Your task to perform on an android device: open app "Duolingo: language lessons" (install if not already installed), go to login, and select forgot password Image 0: 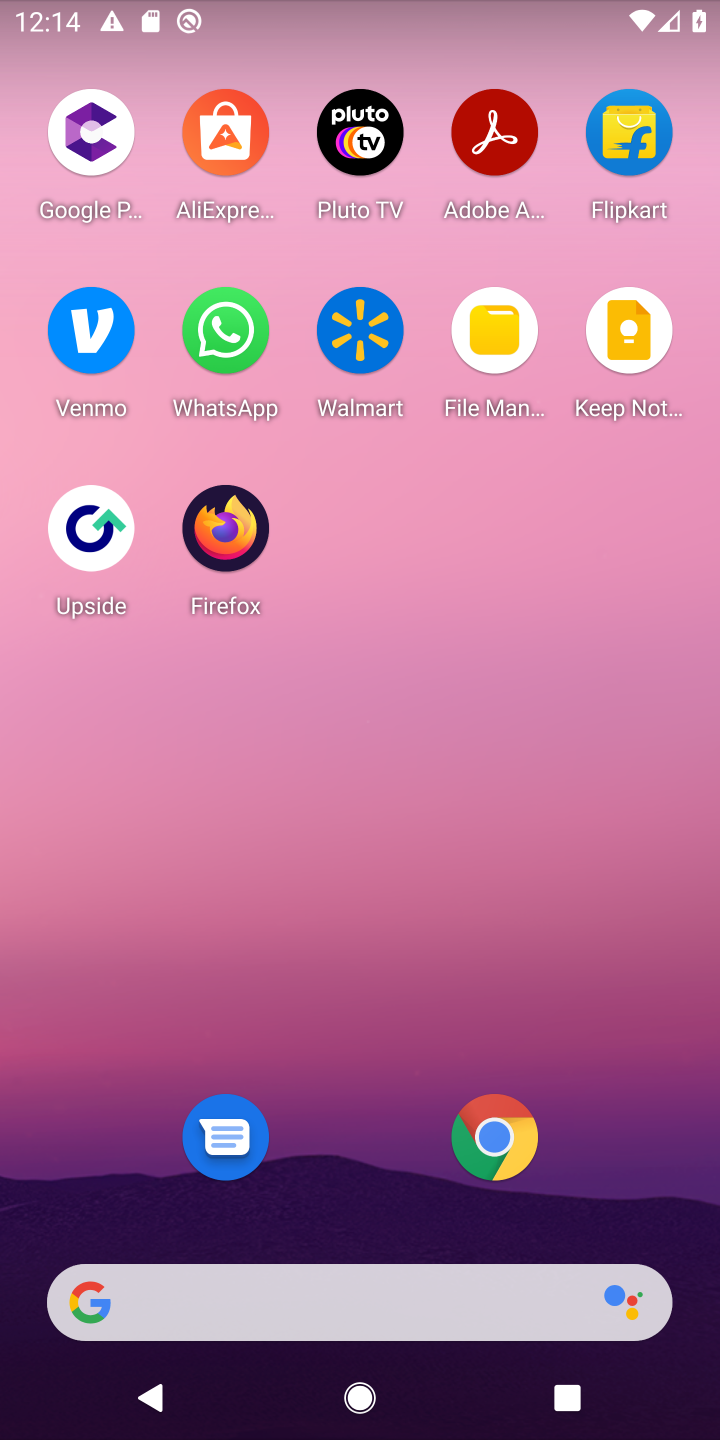
Step 0: click (333, 107)
Your task to perform on an android device: open app "Duolingo: language lessons" (install if not already installed), go to login, and select forgot password Image 1: 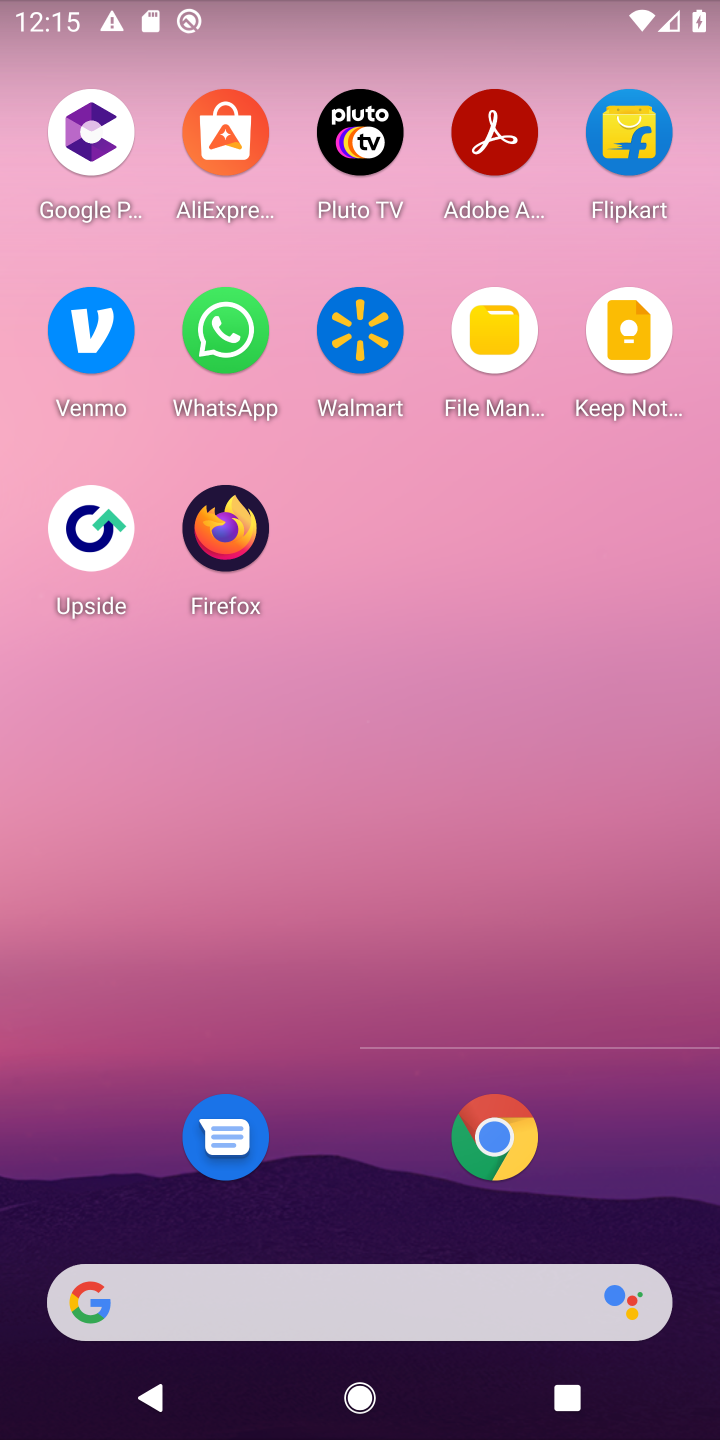
Step 1: drag from (321, 1074) to (356, 262)
Your task to perform on an android device: open app "Duolingo: language lessons" (install if not already installed), go to login, and select forgot password Image 2: 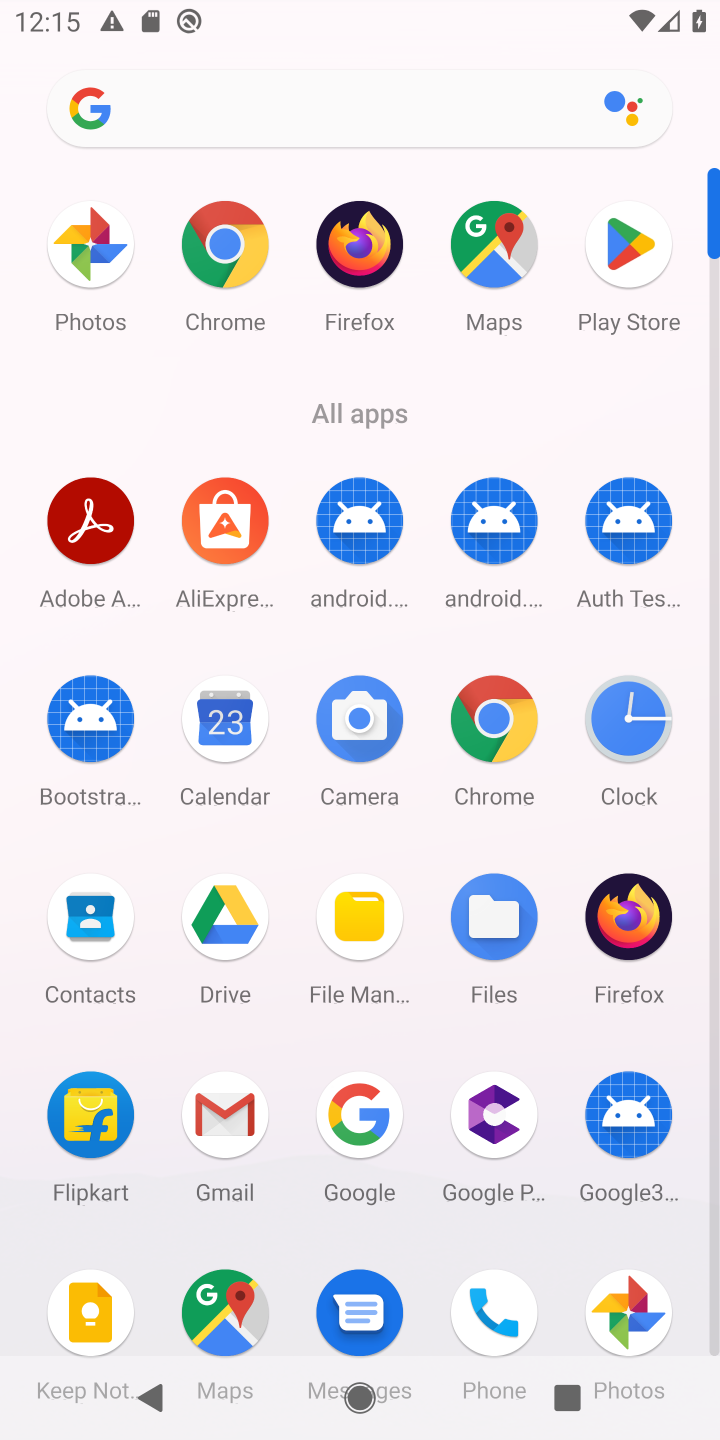
Step 2: click (621, 240)
Your task to perform on an android device: open app "Duolingo: language lessons" (install if not already installed), go to login, and select forgot password Image 3: 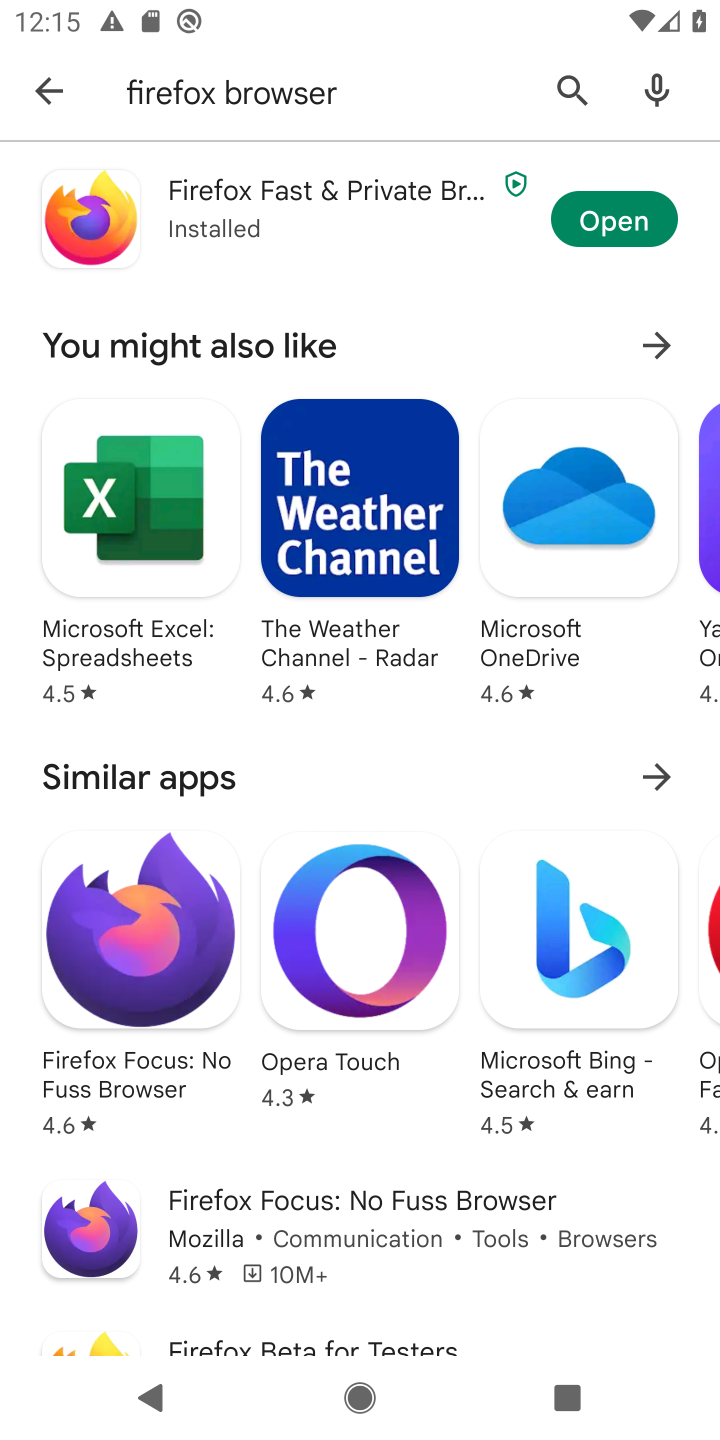
Step 3: click (42, 99)
Your task to perform on an android device: open app "Duolingo: language lessons" (install if not already installed), go to login, and select forgot password Image 4: 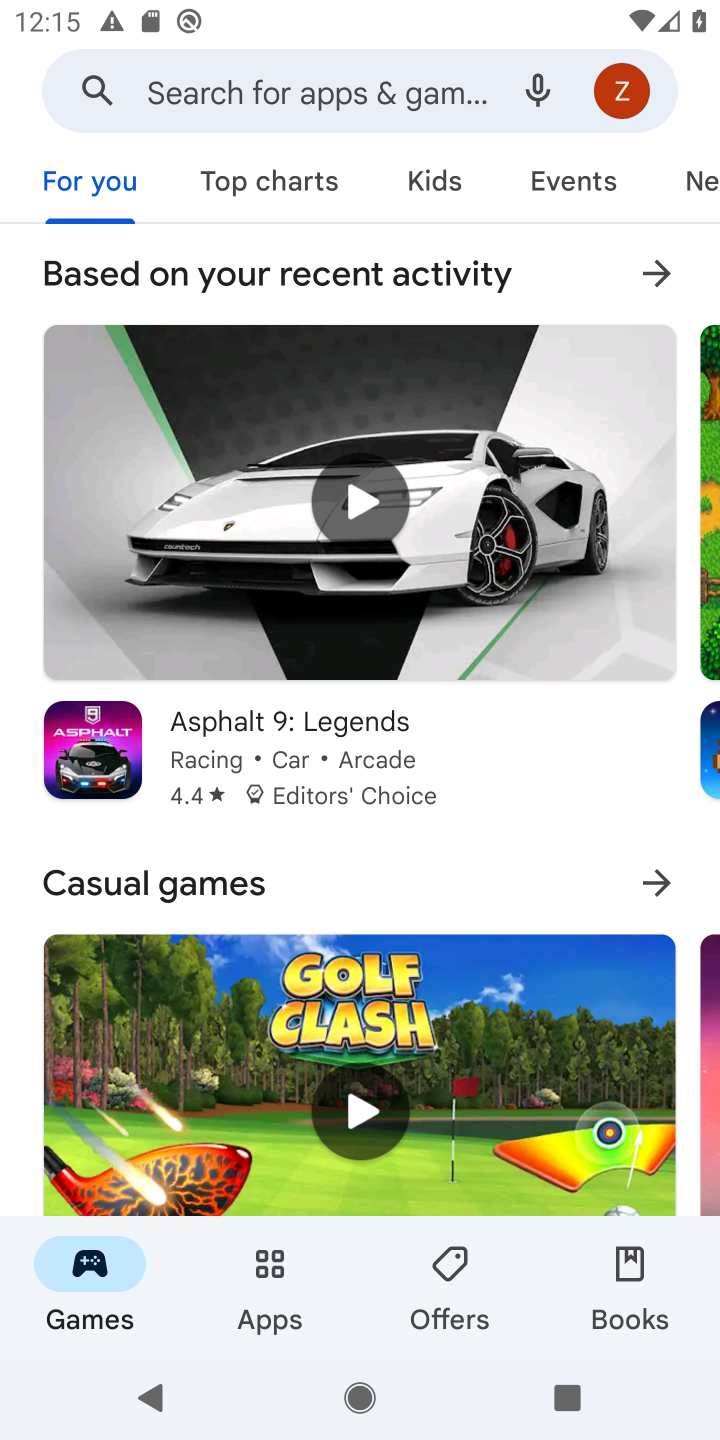
Step 4: click (219, 113)
Your task to perform on an android device: open app "Duolingo: language lessons" (install if not already installed), go to login, and select forgot password Image 5: 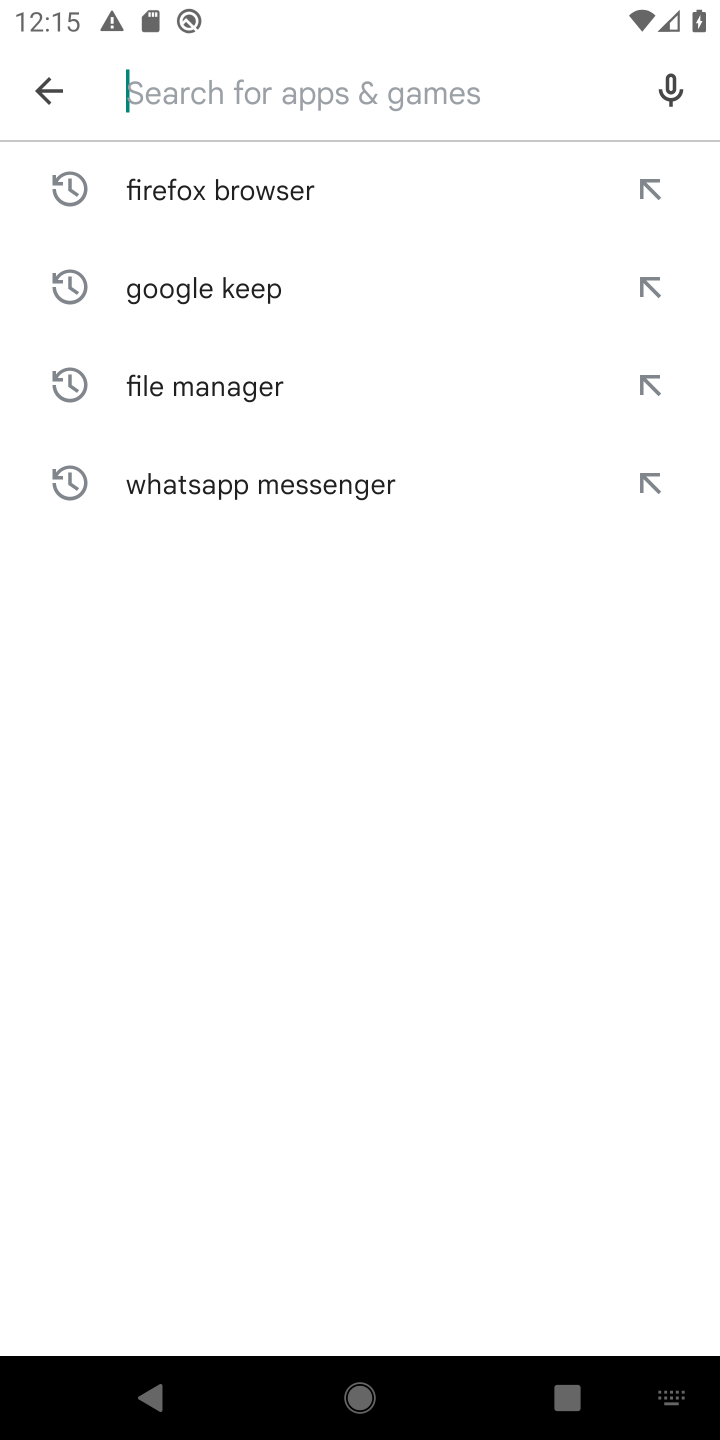
Step 5: type "Duolingo: language lessons"
Your task to perform on an android device: open app "Duolingo: language lessons" (install if not already installed), go to login, and select forgot password Image 6: 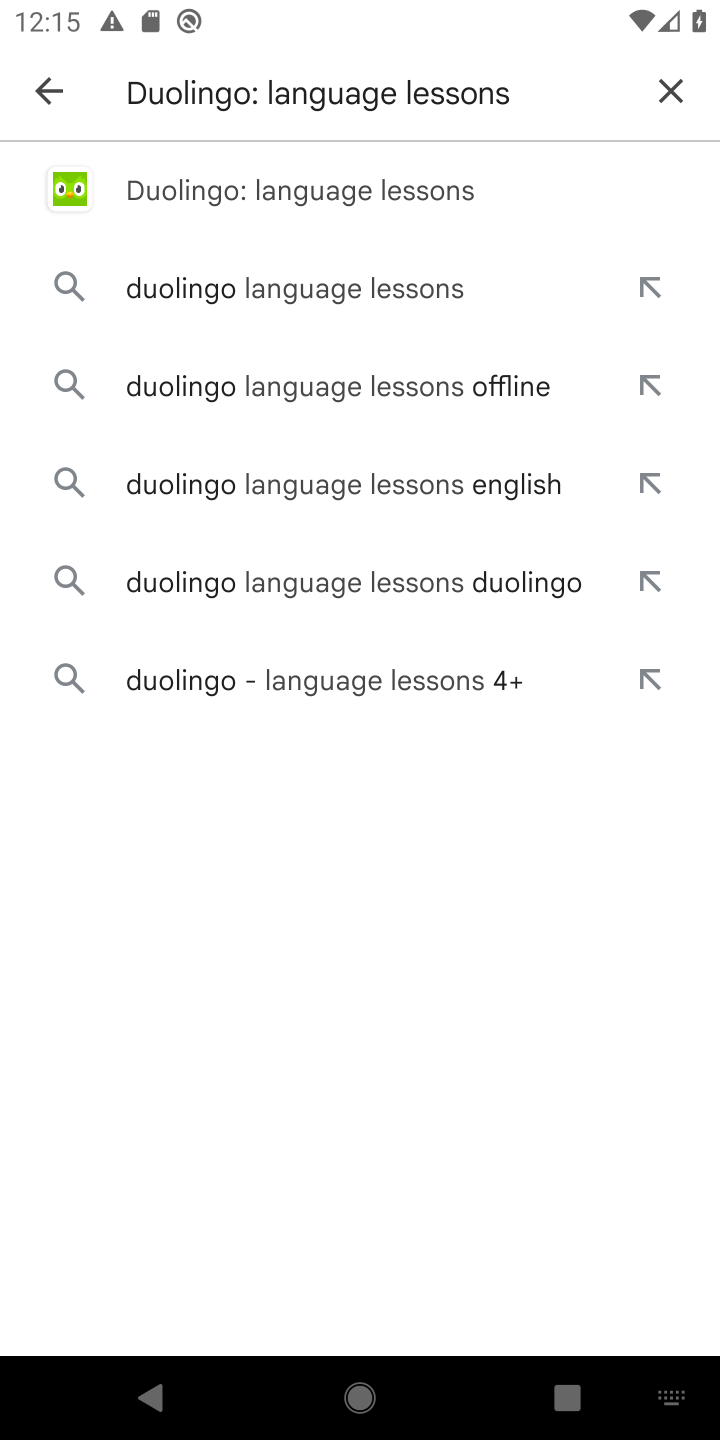
Step 6: click (322, 188)
Your task to perform on an android device: open app "Duolingo: language lessons" (install if not already installed), go to login, and select forgot password Image 7: 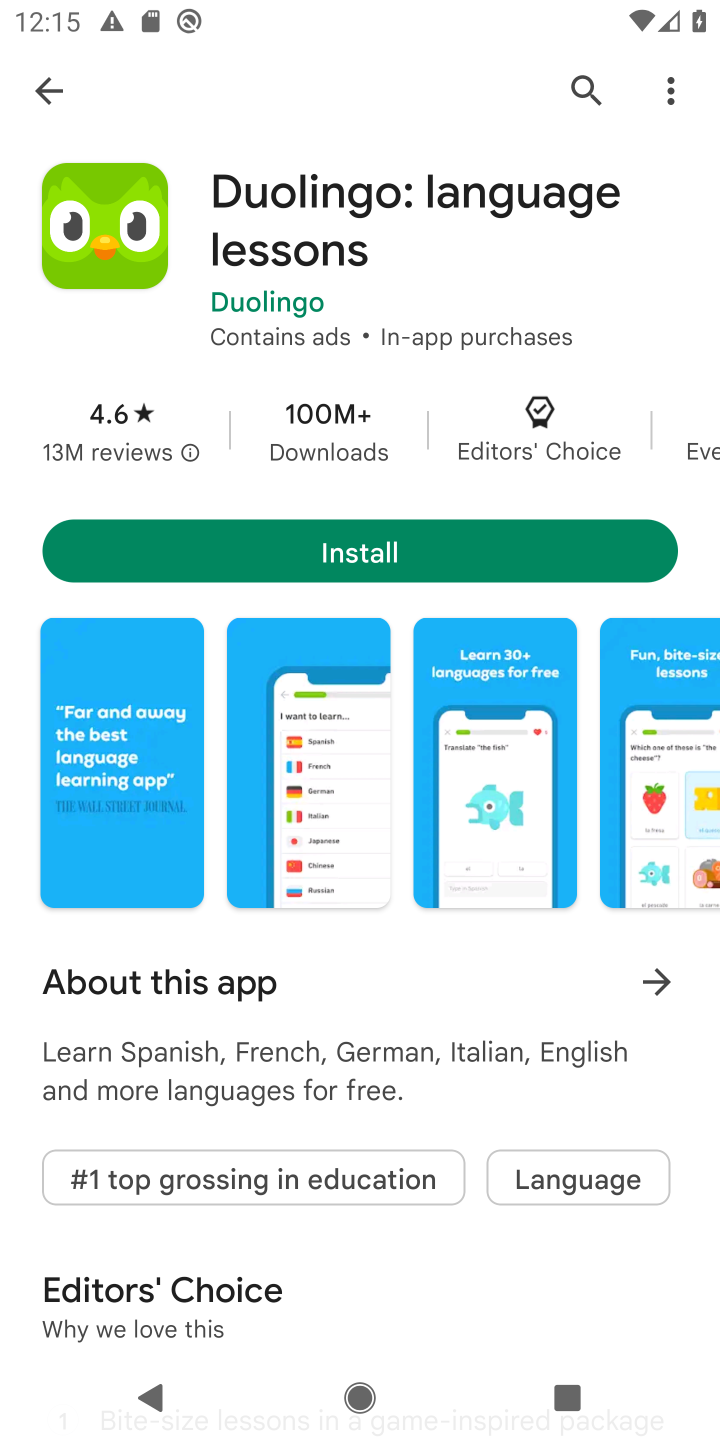
Step 7: click (356, 553)
Your task to perform on an android device: open app "Duolingo: language lessons" (install if not already installed), go to login, and select forgot password Image 8: 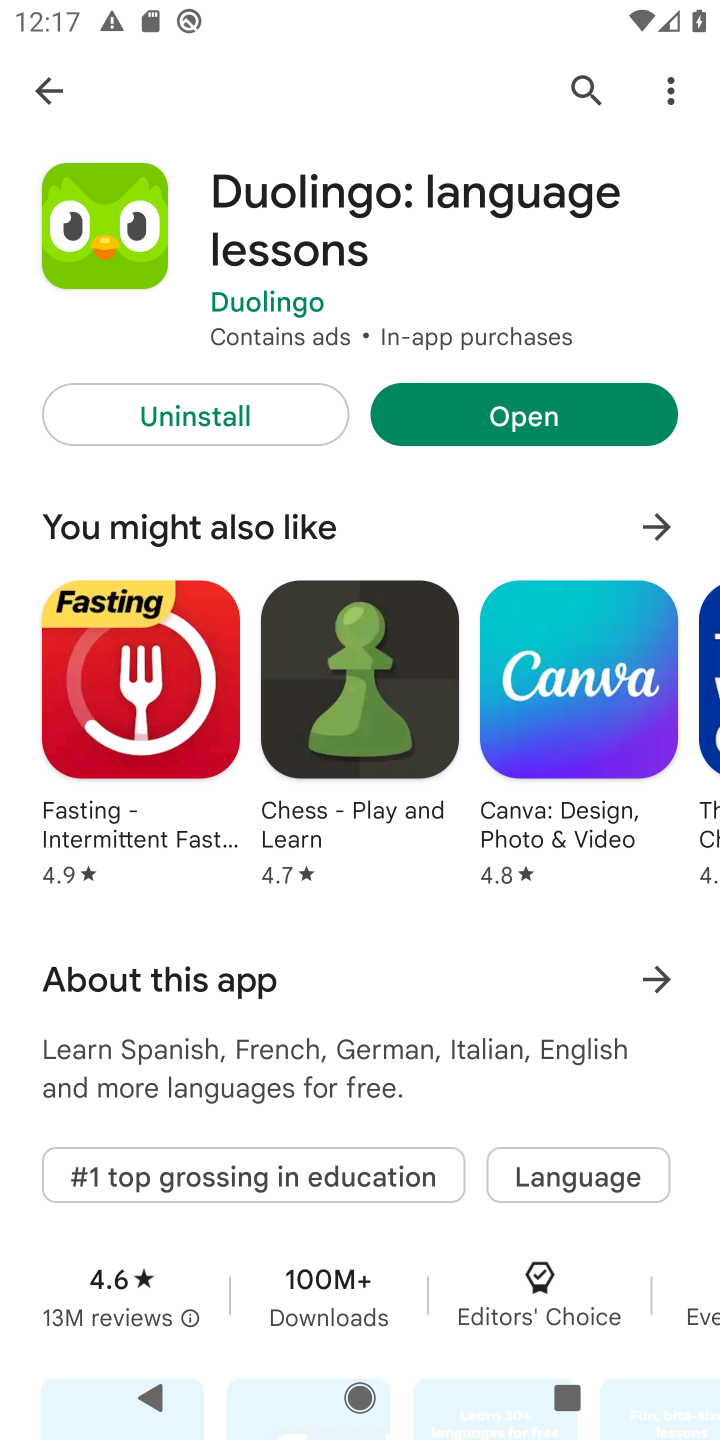
Step 8: click (481, 418)
Your task to perform on an android device: open app "Duolingo: language lessons" (install if not already installed), go to login, and select forgot password Image 9: 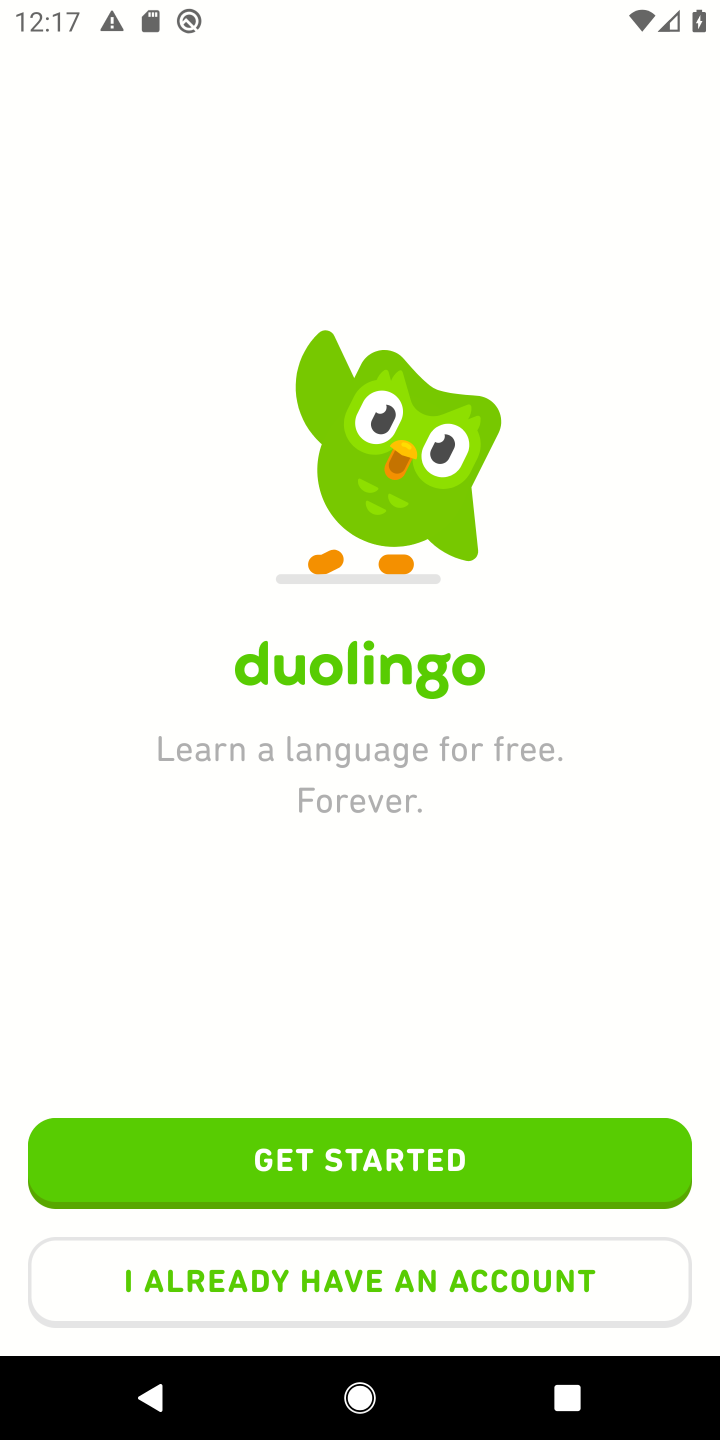
Step 9: task complete